Your task to perform on an android device: Check the weather Image 0: 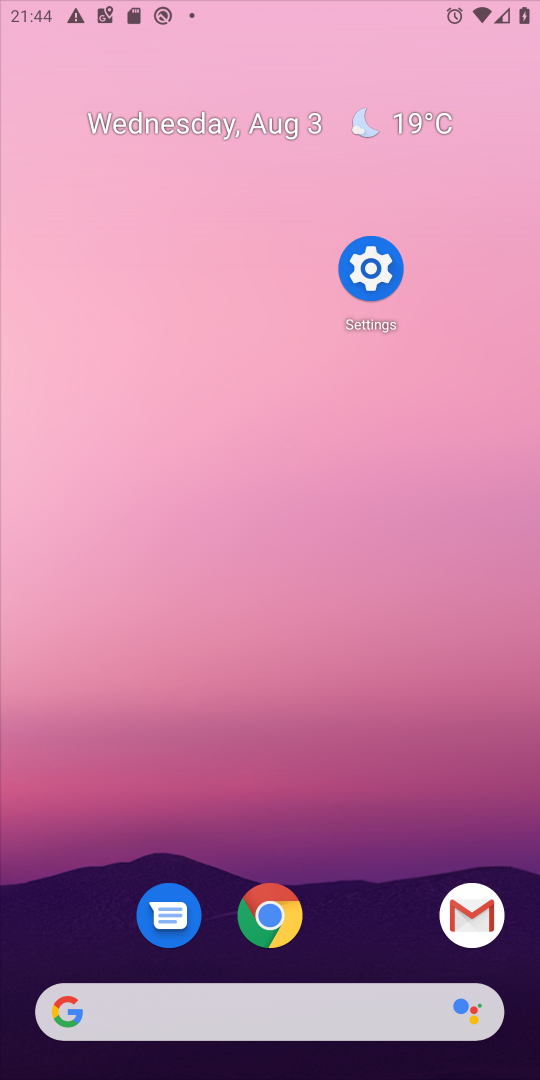
Step 0: press home button
Your task to perform on an android device: Check the weather Image 1: 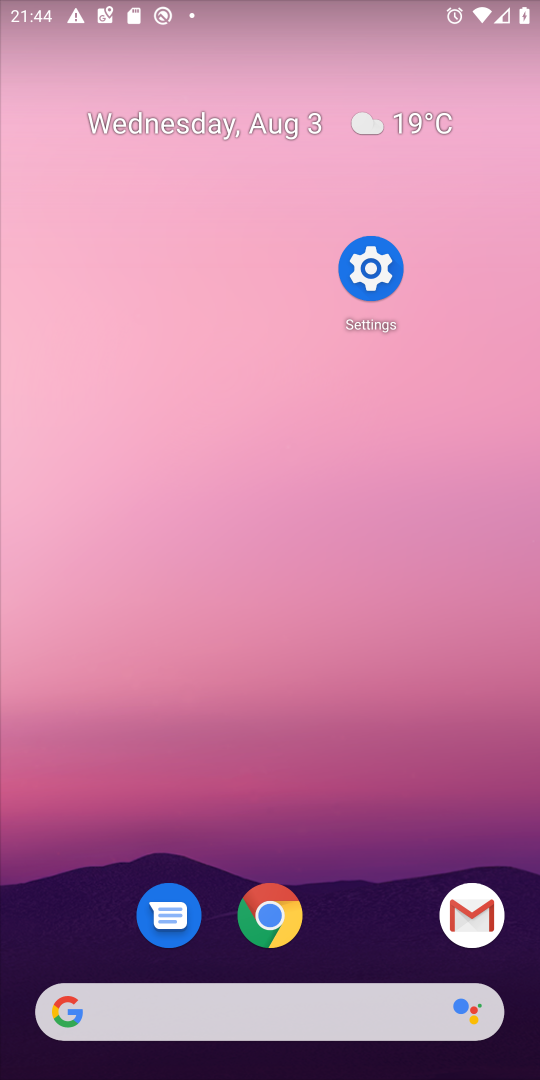
Step 1: click (306, 1011)
Your task to perform on an android device: Check the weather Image 2: 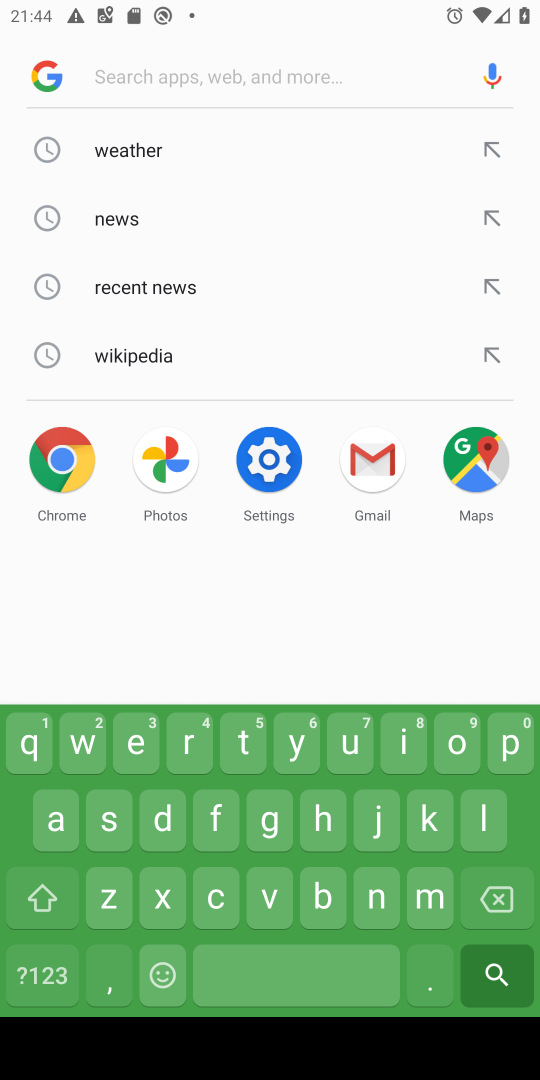
Step 2: click (147, 150)
Your task to perform on an android device: Check the weather Image 3: 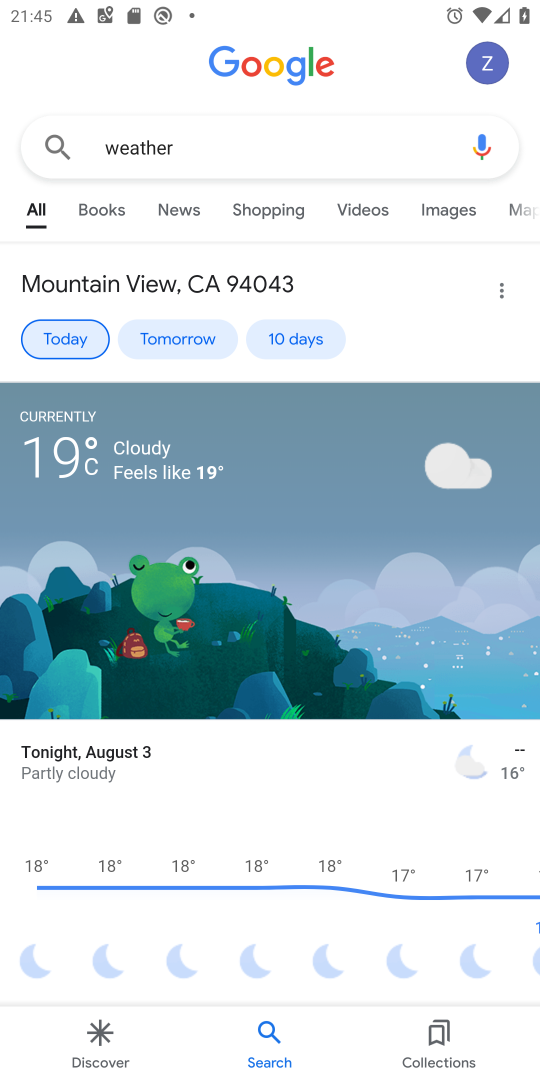
Step 3: task complete